Your task to perform on an android device: Open the calendar app, open the side menu, and click the "Day" option Image 0: 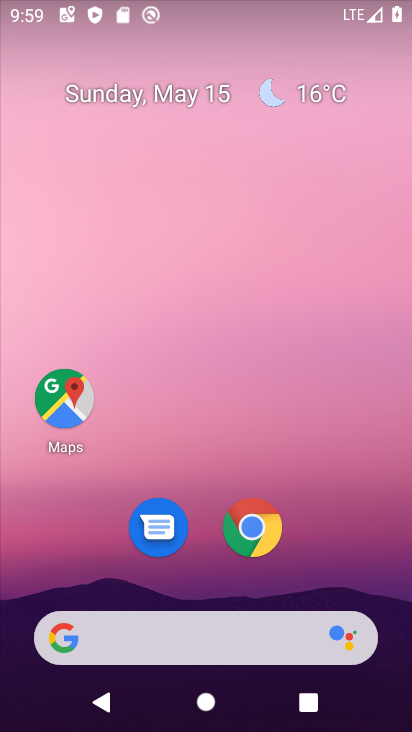
Step 0: drag from (364, 573) to (408, 319)
Your task to perform on an android device: Open the calendar app, open the side menu, and click the "Day" option Image 1: 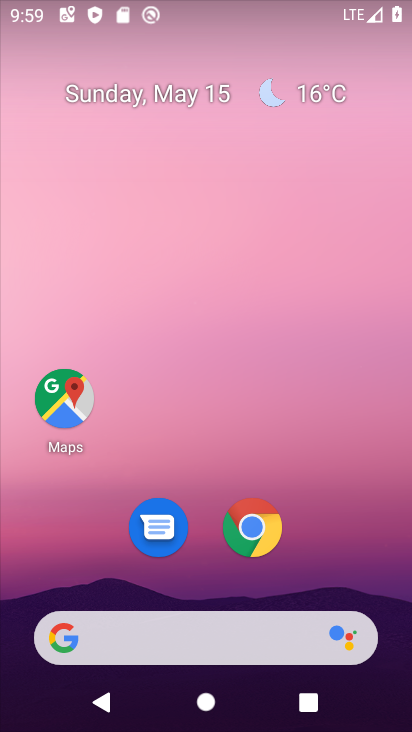
Step 1: drag from (354, 563) to (409, 23)
Your task to perform on an android device: Open the calendar app, open the side menu, and click the "Day" option Image 2: 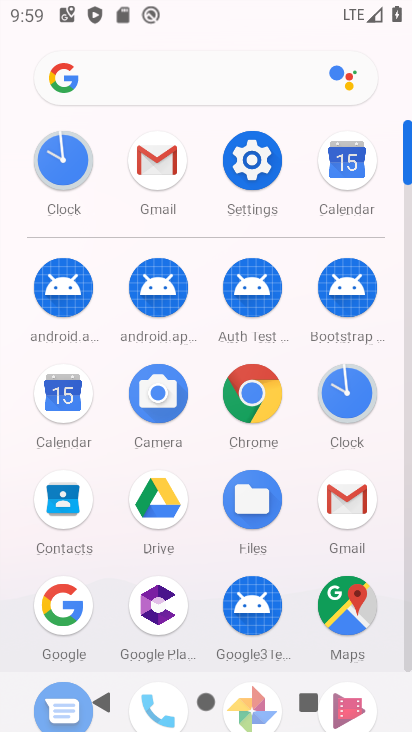
Step 2: click (338, 171)
Your task to perform on an android device: Open the calendar app, open the side menu, and click the "Day" option Image 3: 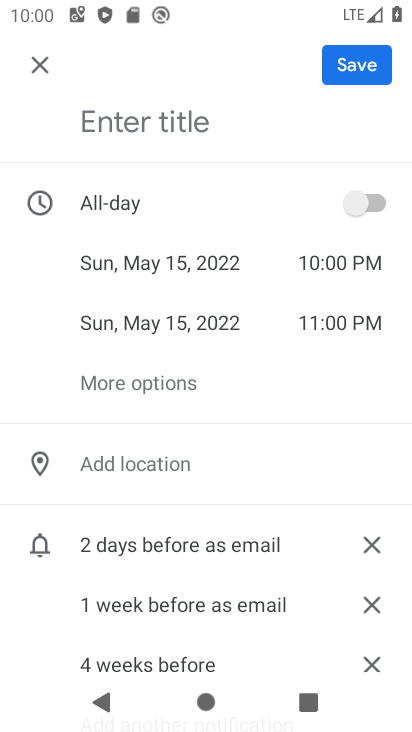
Step 3: click (39, 58)
Your task to perform on an android device: Open the calendar app, open the side menu, and click the "Day" option Image 4: 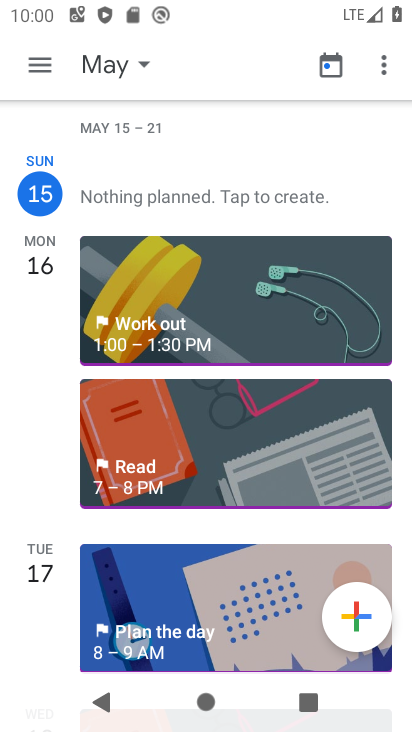
Step 4: click (31, 65)
Your task to perform on an android device: Open the calendar app, open the side menu, and click the "Day" option Image 5: 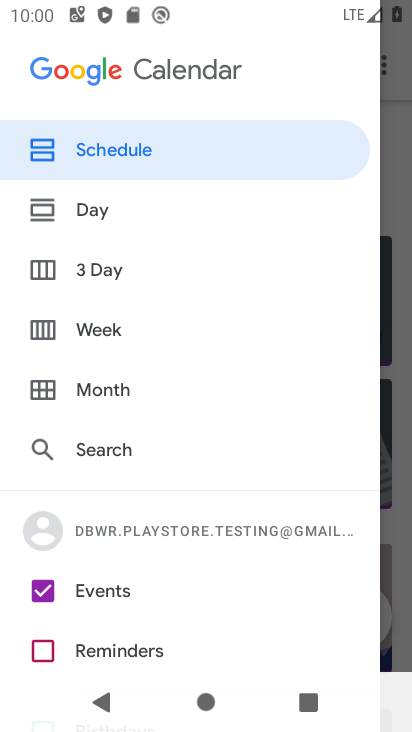
Step 5: click (64, 212)
Your task to perform on an android device: Open the calendar app, open the side menu, and click the "Day" option Image 6: 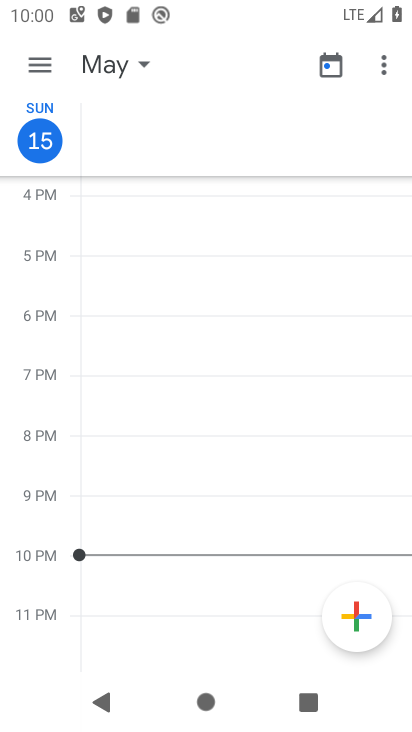
Step 6: task complete